Your task to perform on an android device: Go to wifi settings Image 0: 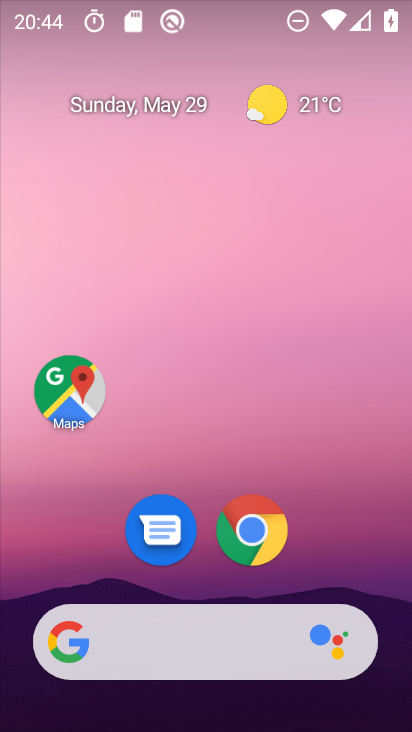
Step 0: press home button
Your task to perform on an android device: Go to wifi settings Image 1: 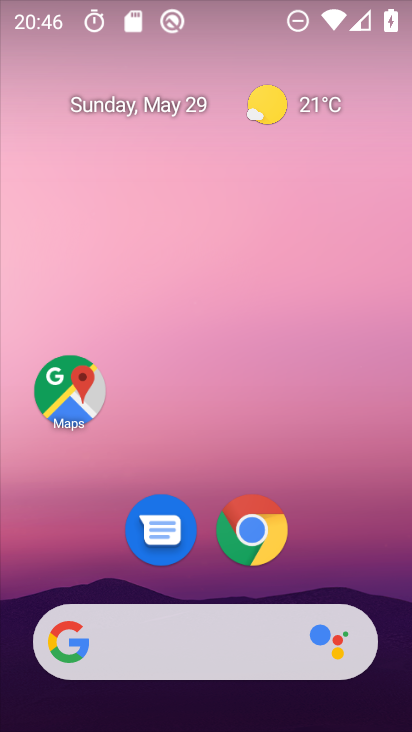
Step 1: drag from (244, 648) to (282, 33)
Your task to perform on an android device: Go to wifi settings Image 2: 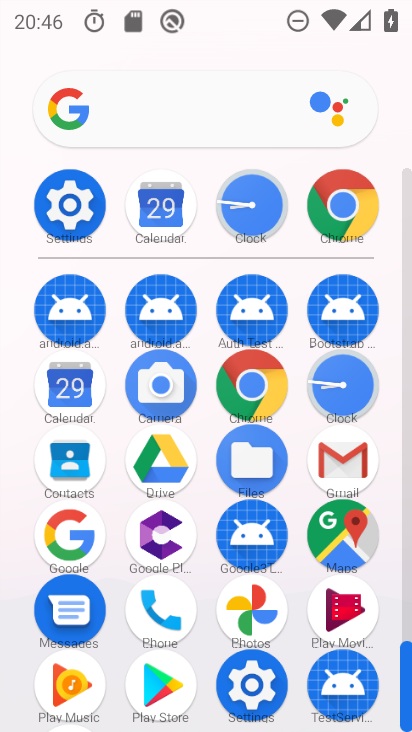
Step 2: click (91, 223)
Your task to perform on an android device: Go to wifi settings Image 3: 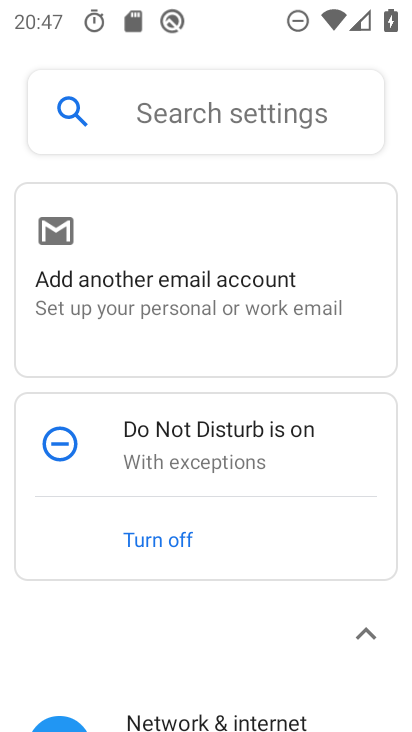
Step 3: click (198, 715)
Your task to perform on an android device: Go to wifi settings Image 4: 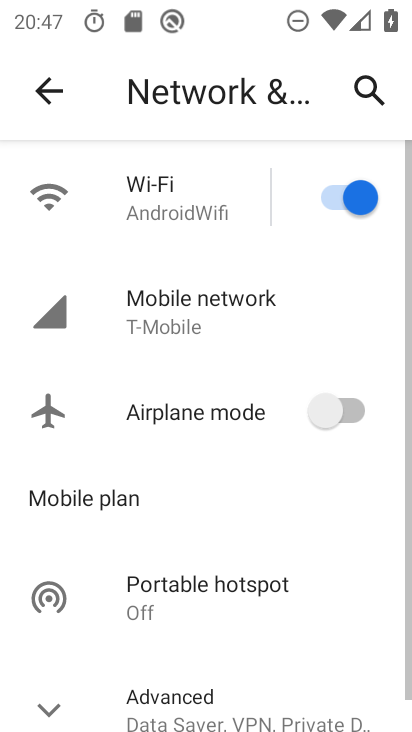
Step 4: click (141, 197)
Your task to perform on an android device: Go to wifi settings Image 5: 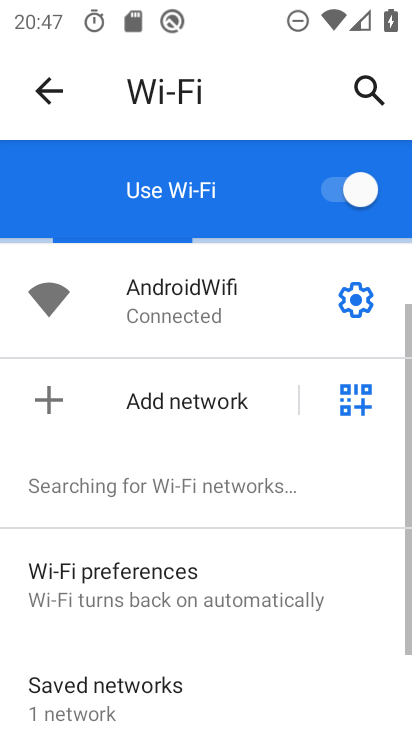
Step 5: task complete